Your task to perform on an android device: visit the assistant section in the google photos Image 0: 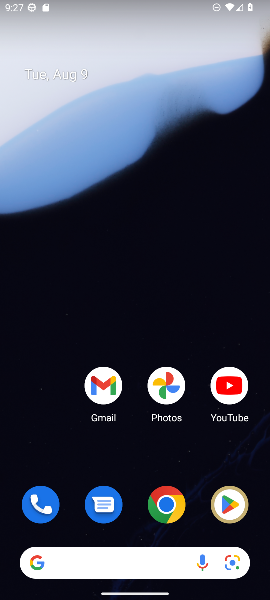
Step 0: press home button
Your task to perform on an android device: visit the assistant section in the google photos Image 1: 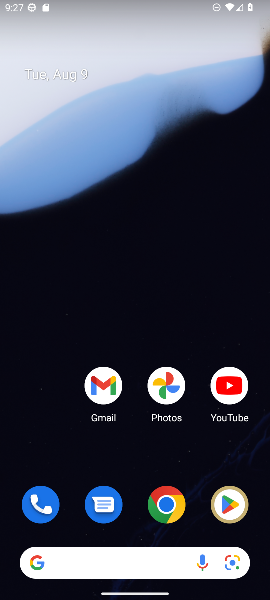
Step 1: drag from (112, 455) to (115, 158)
Your task to perform on an android device: visit the assistant section in the google photos Image 2: 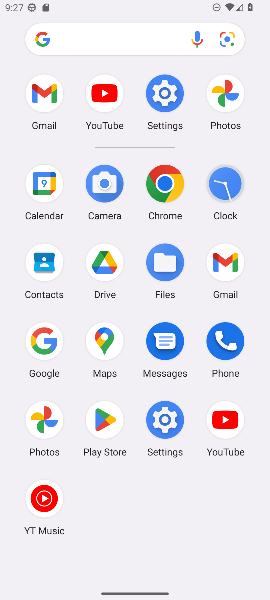
Step 2: click (224, 92)
Your task to perform on an android device: visit the assistant section in the google photos Image 3: 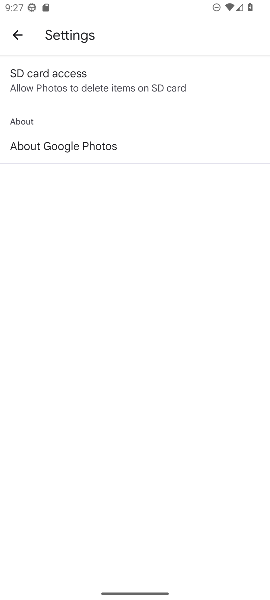
Step 3: click (14, 31)
Your task to perform on an android device: visit the assistant section in the google photos Image 4: 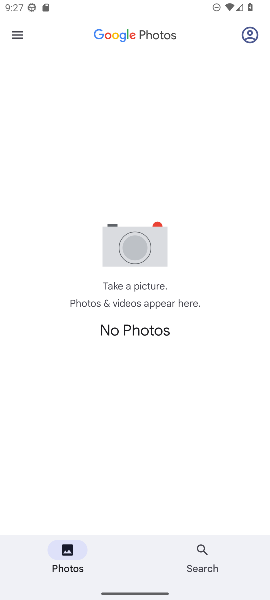
Step 4: click (208, 557)
Your task to perform on an android device: visit the assistant section in the google photos Image 5: 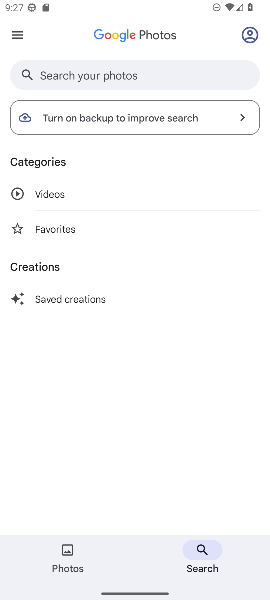
Step 5: click (112, 73)
Your task to perform on an android device: visit the assistant section in the google photos Image 6: 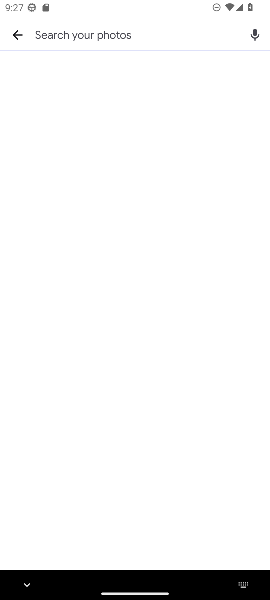
Step 6: type "assistant"
Your task to perform on an android device: visit the assistant section in the google photos Image 7: 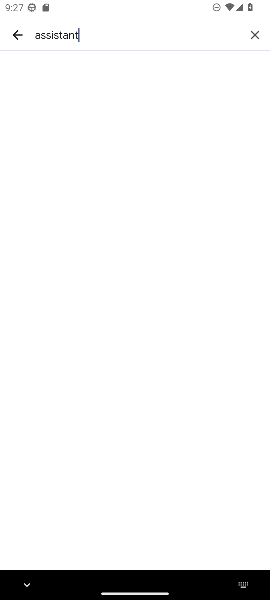
Step 7: task complete